Your task to perform on an android device: What is the capital of India? Image 0: 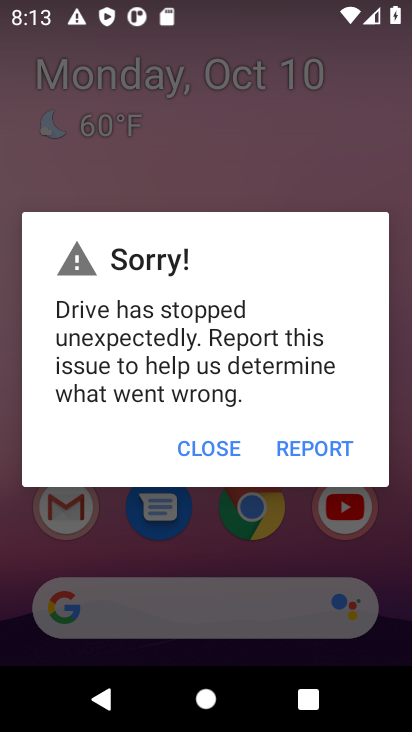
Step 0: click (223, 461)
Your task to perform on an android device: What is the capital of India? Image 1: 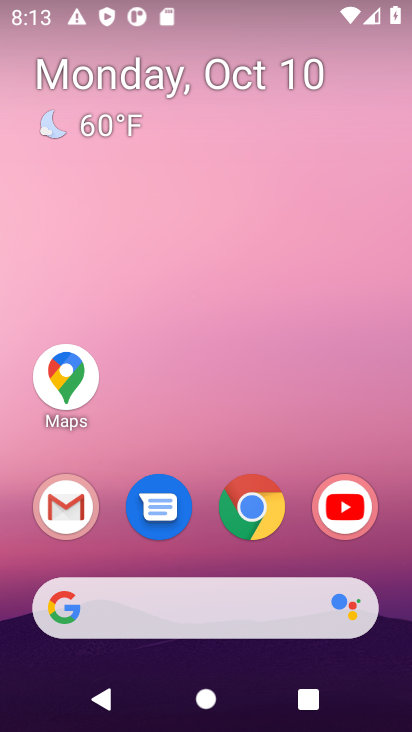
Step 1: click (208, 597)
Your task to perform on an android device: What is the capital of India? Image 2: 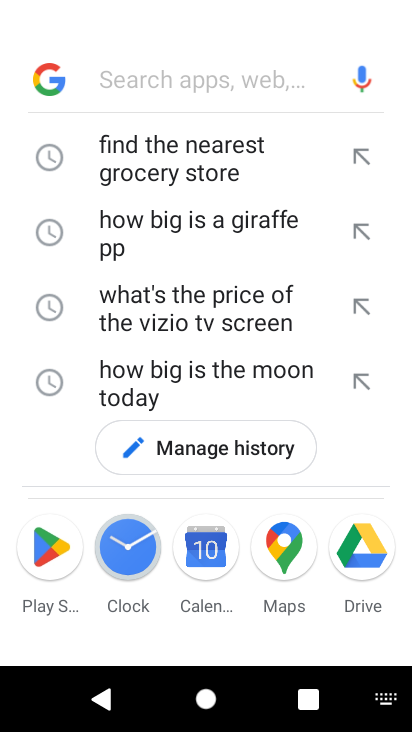
Step 2: type "What is the capital of India?"
Your task to perform on an android device: What is the capital of India? Image 3: 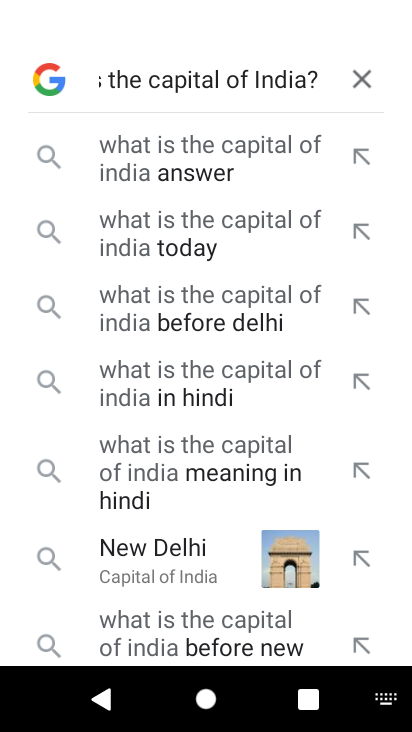
Step 3: click (203, 164)
Your task to perform on an android device: What is the capital of India? Image 4: 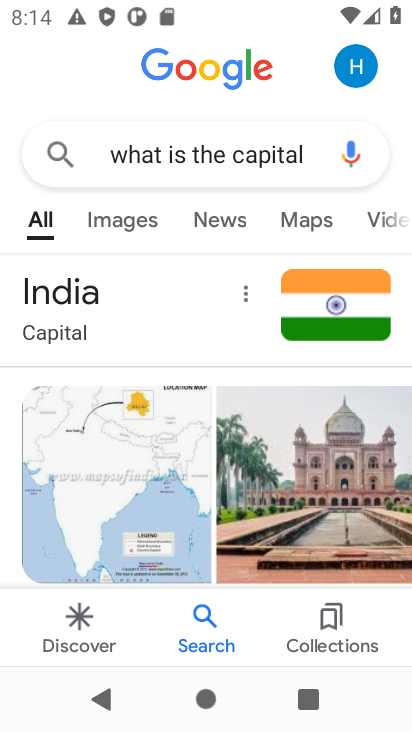
Step 4: task complete